Your task to perform on an android device: Go to accessibility settings Image 0: 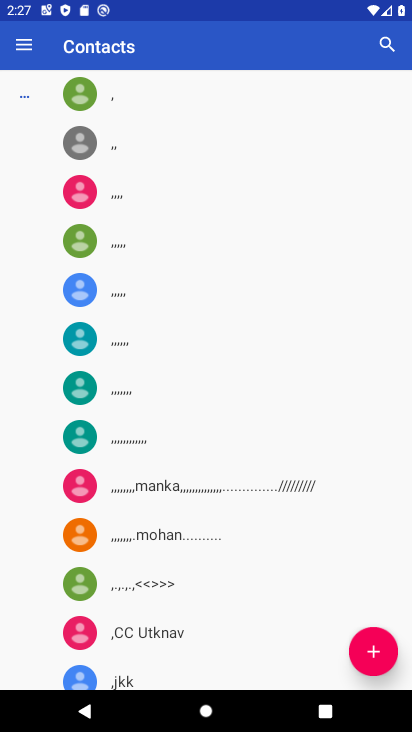
Step 0: press back button
Your task to perform on an android device: Go to accessibility settings Image 1: 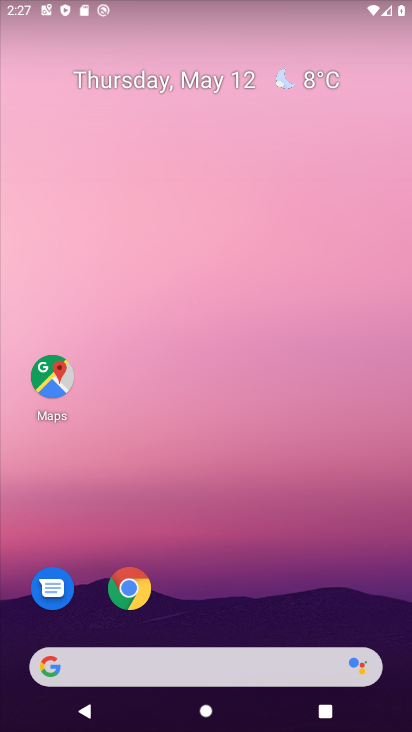
Step 1: drag from (300, 499) to (246, 32)
Your task to perform on an android device: Go to accessibility settings Image 2: 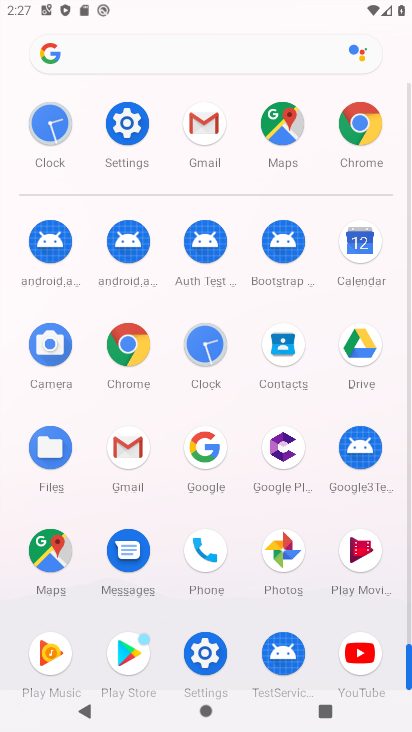
Step 2: click (207, 652)
Your task to perform on an android device: Go to accessibility settings Image 3: 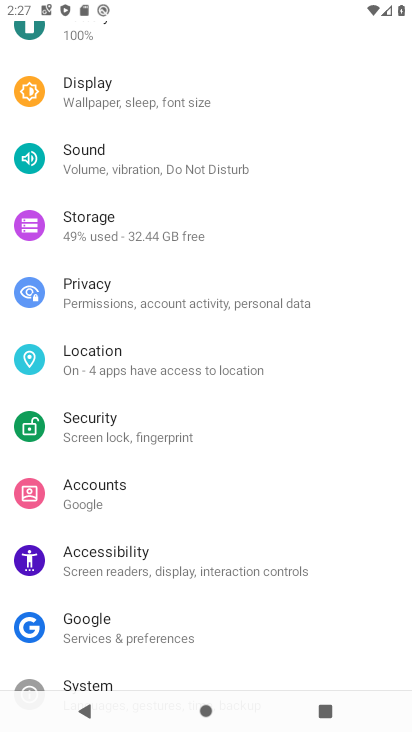
Step 3: drag from (210, 139) to (195, 546)
Your task to perform on an android device: Go to accessibility settings Image 4: 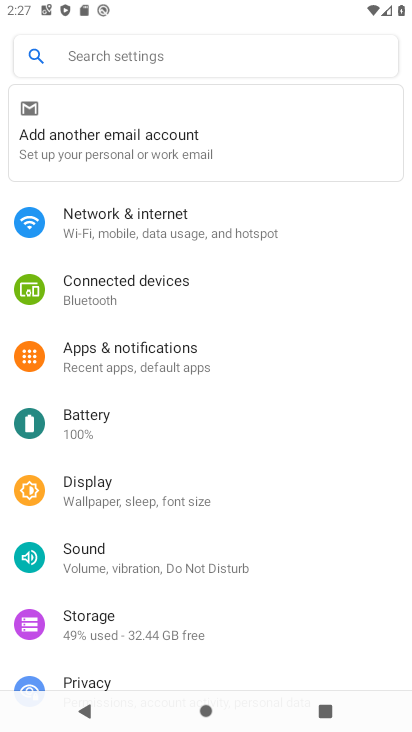
Step 4: drag from (172, 577) to (215, 130)
Your task to perform on an android device: Go to accessibility settings Image 5: 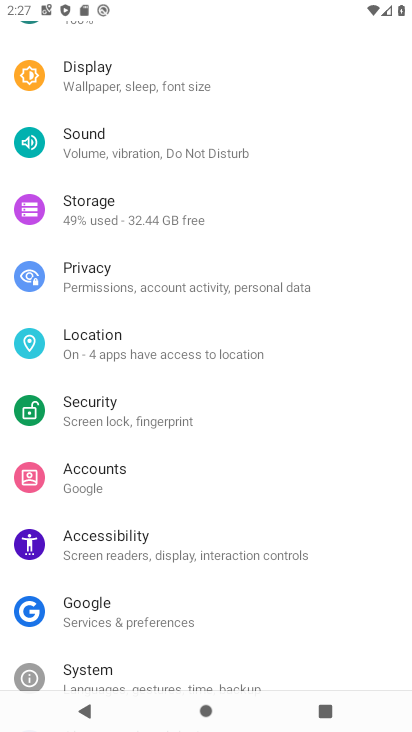
Step 5: drag from (157, 522) to (224, 138)
Your task to perform on an android device: Go to accessibility settings Image 6: 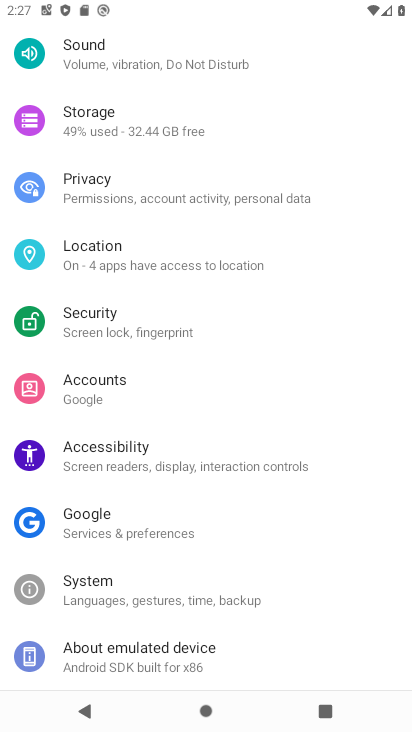
Step 6: click (132, 465)
Your task to perform on an android device: Go to accessibility settings Image 7: 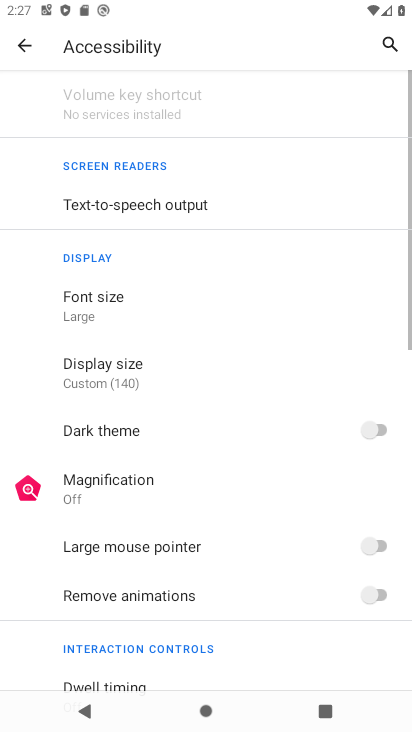
Step 7: task complete